Your task to perform on an android device: install app "Pluto TV - Live TV and Movies" Image 0: 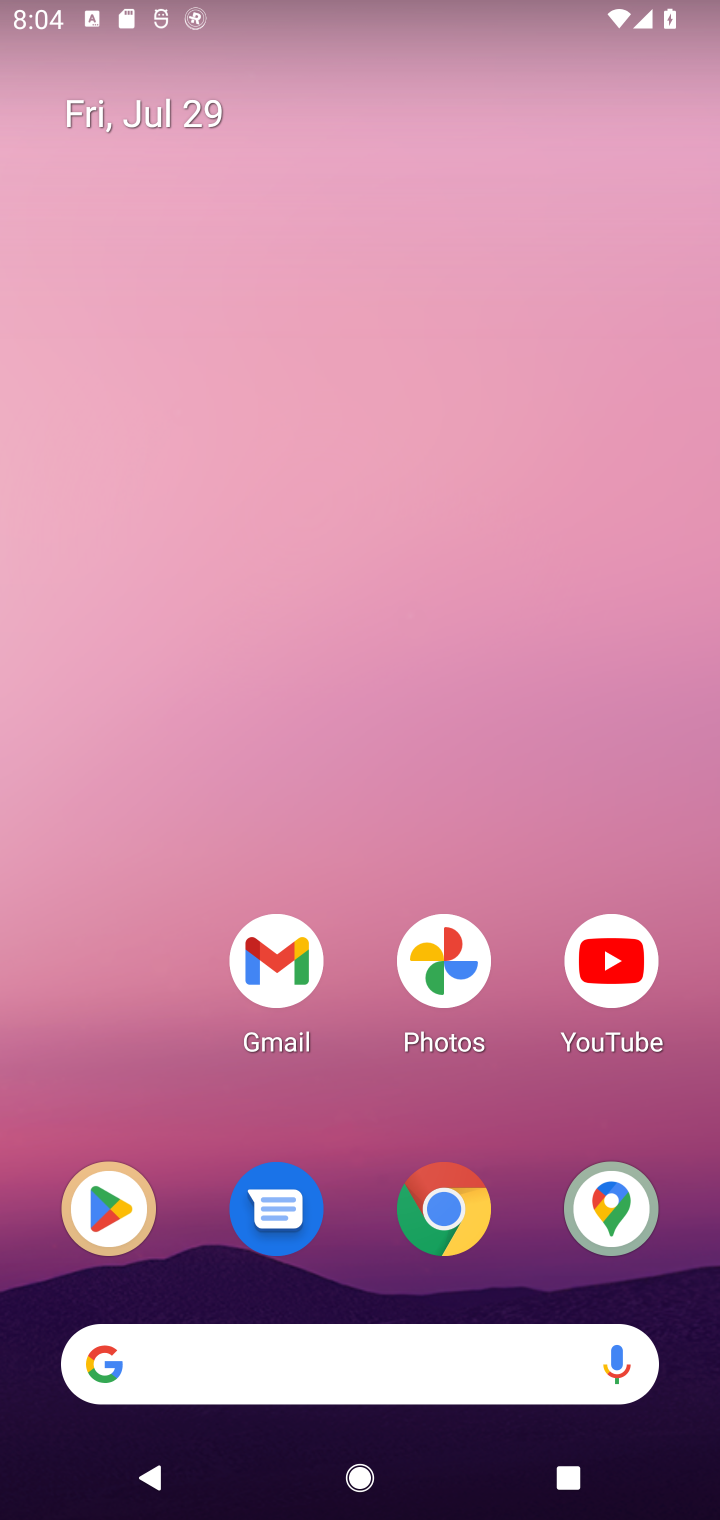
Step 0: click (114, 1222)
Your task to perform on an android device: install app "Pluto TV - Live TV and Movies" Image 1: 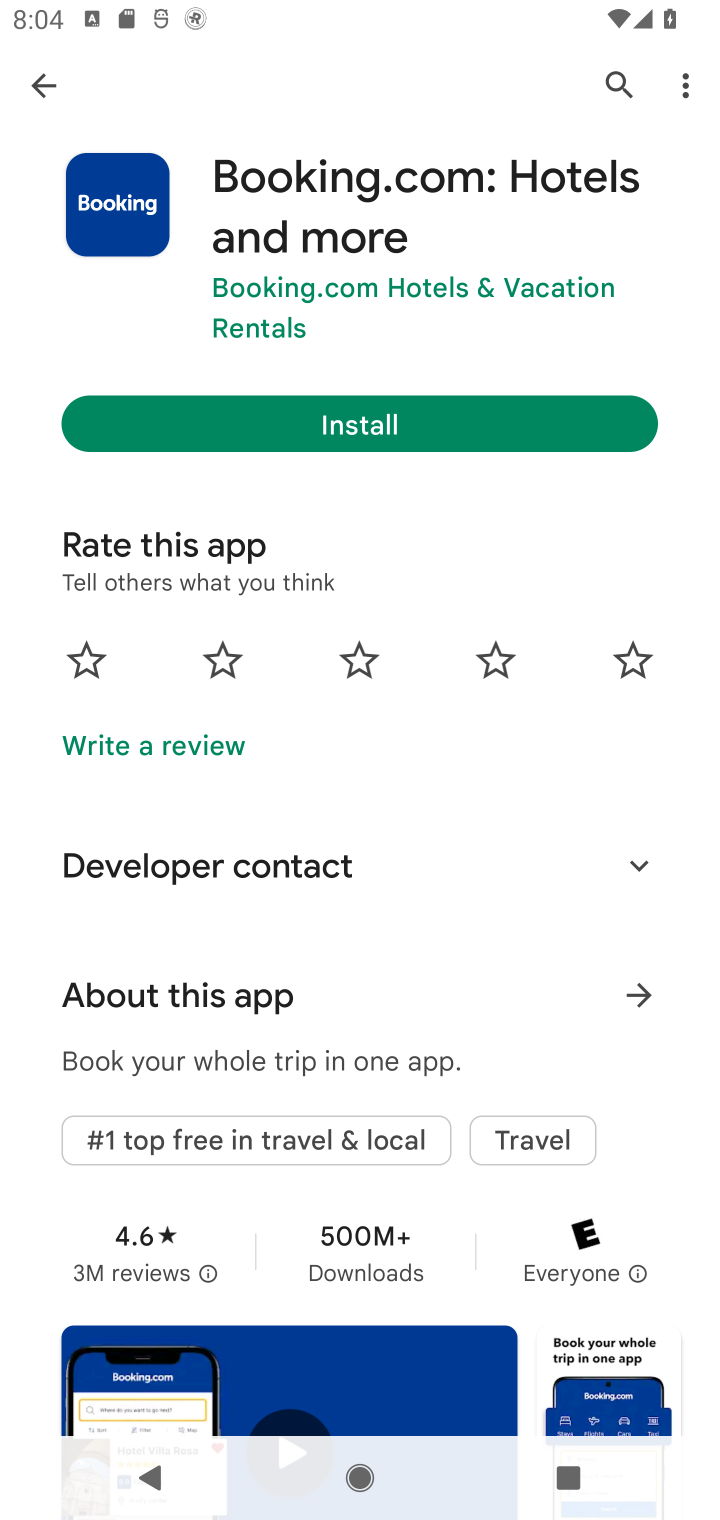
Step 1: click (616, 84)
Your task to perform on an android device: install app "Pluto TV - Live TV and Movies" Image 2: 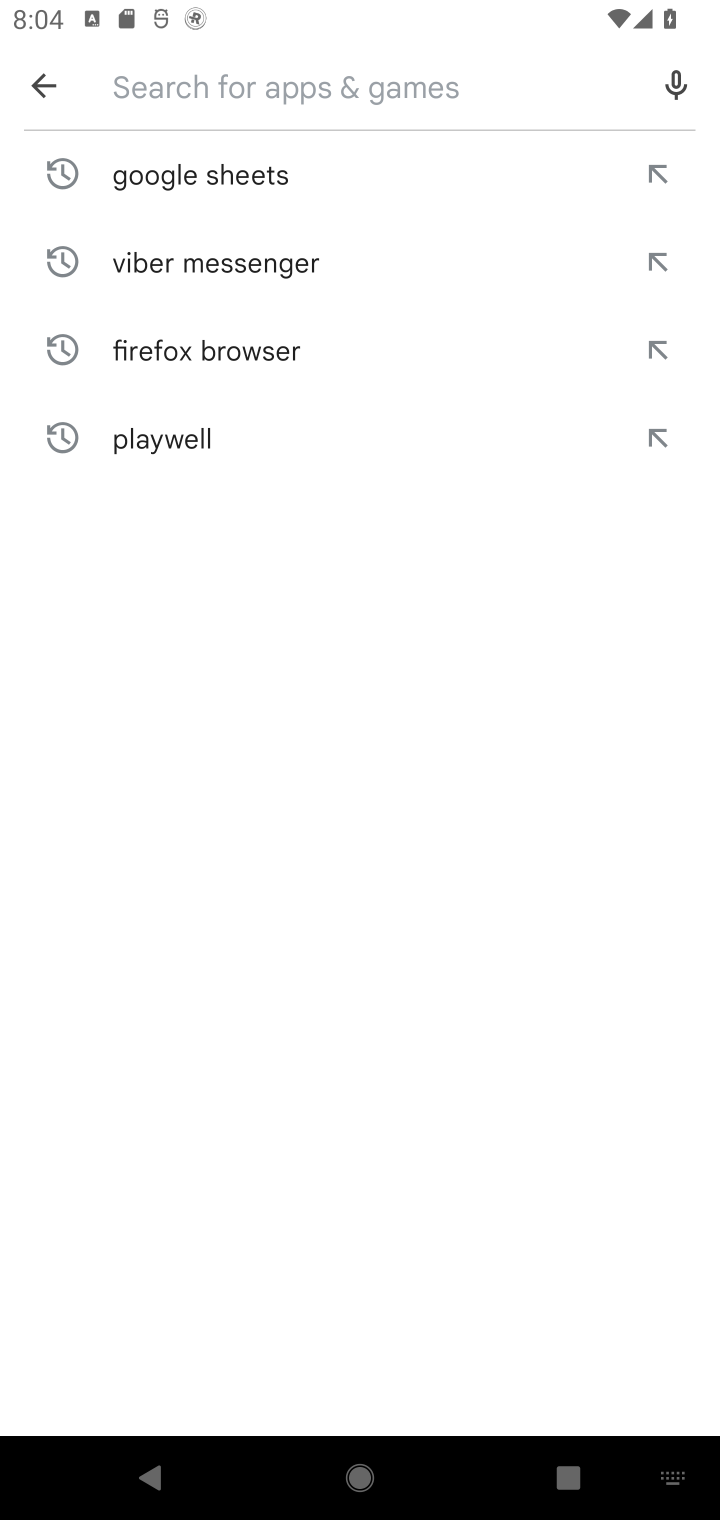
Step 2: click (383, 85)
Your task to perform on an android device: install app "Pluto TV - Live TV and Movies" Image 3: 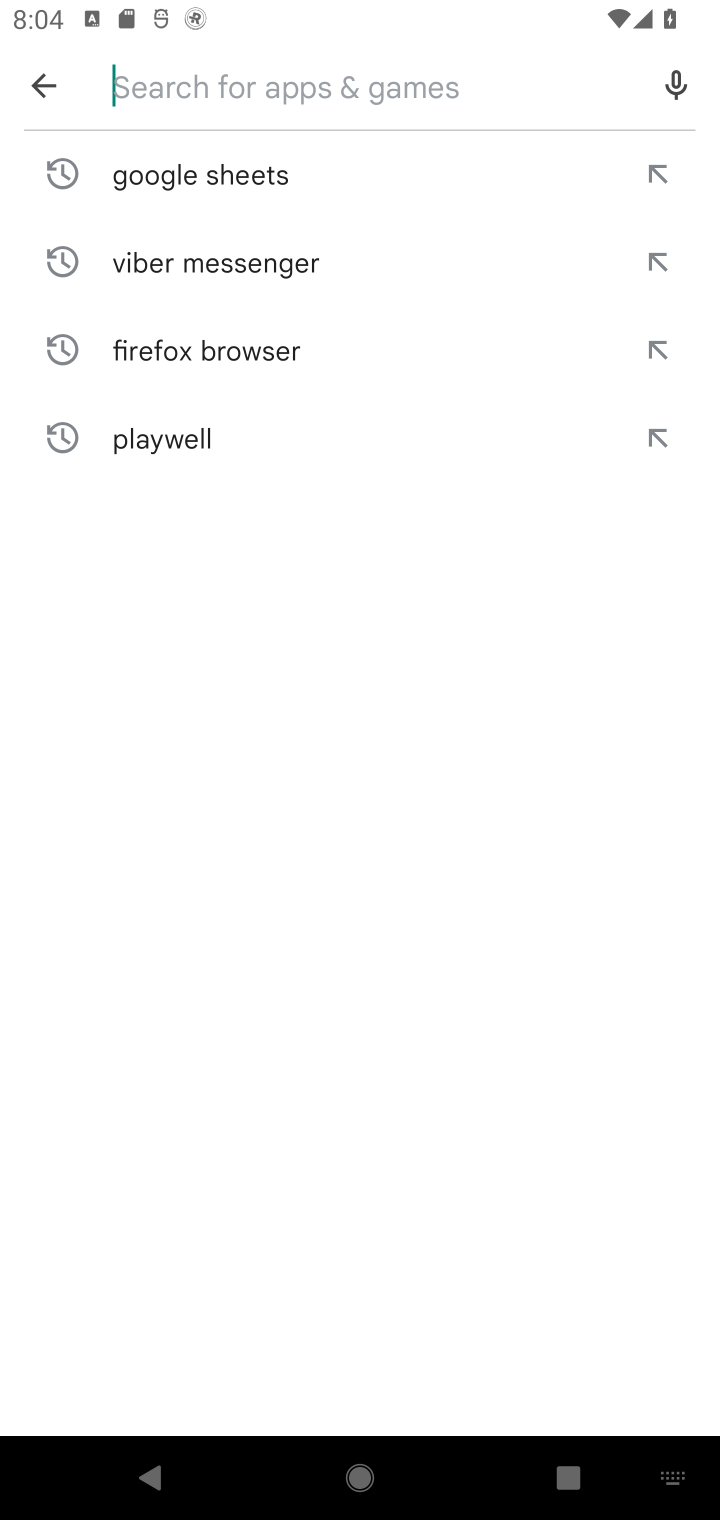
Step 3: type "Pluto TV - Live TV and Movies"
Your task to perform on an android device: install app "Pluto TV - Live TV and Movies" Image 4: 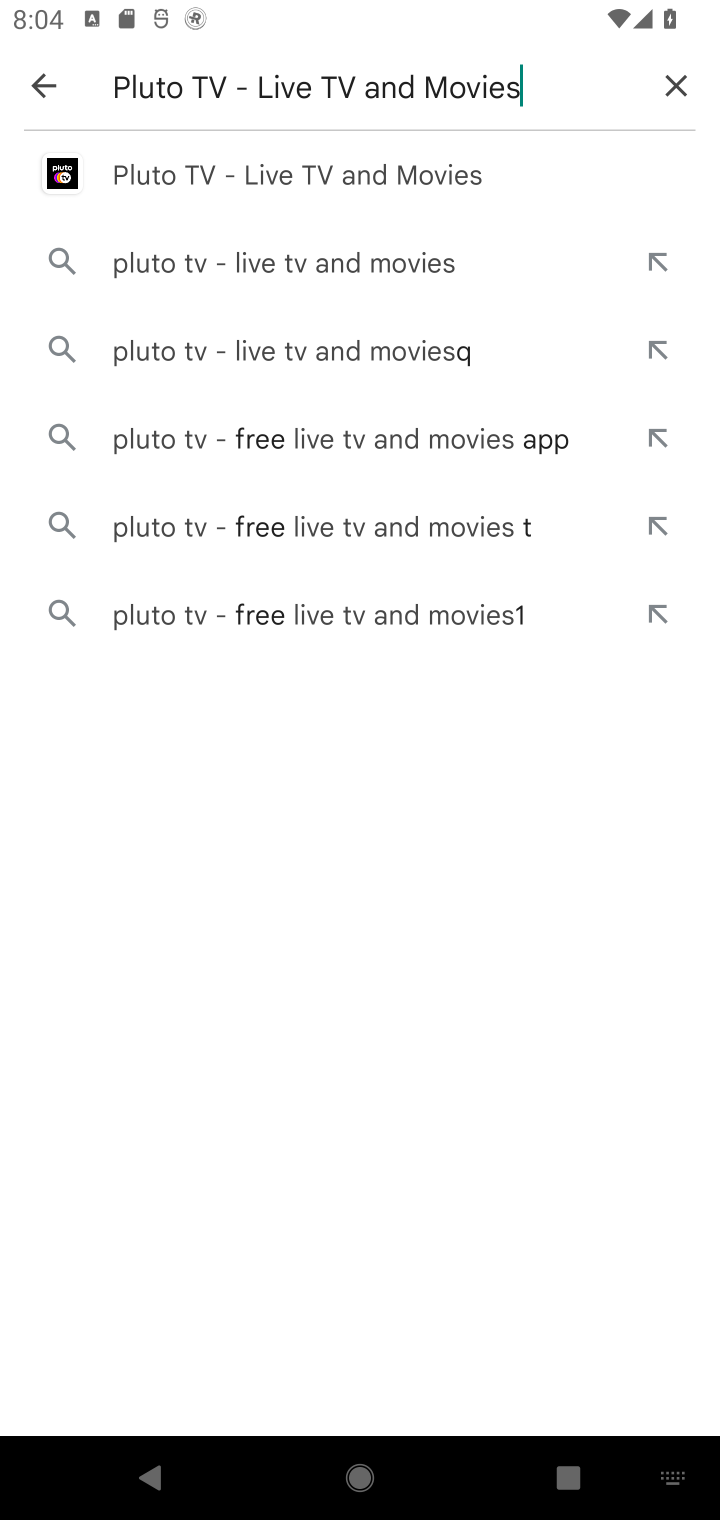
Step 4: click (256, 189)
Your task to perform on an android device: install app "Pluto TV - Live TV and Movies" Image 5: 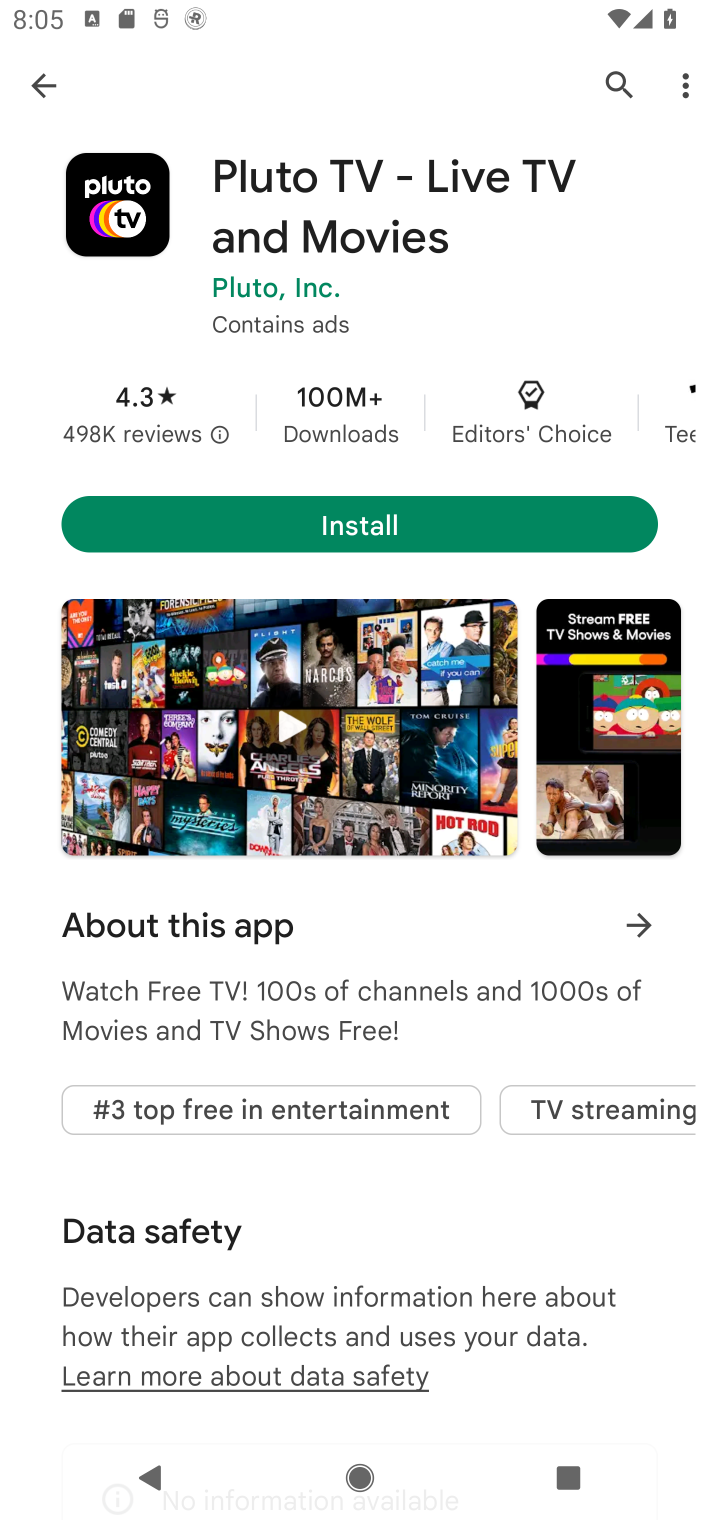
Step 5: click (353, 540)
Your task to perform on an android device: install app "Pluto TV - Live TV and Movies" Image 6: 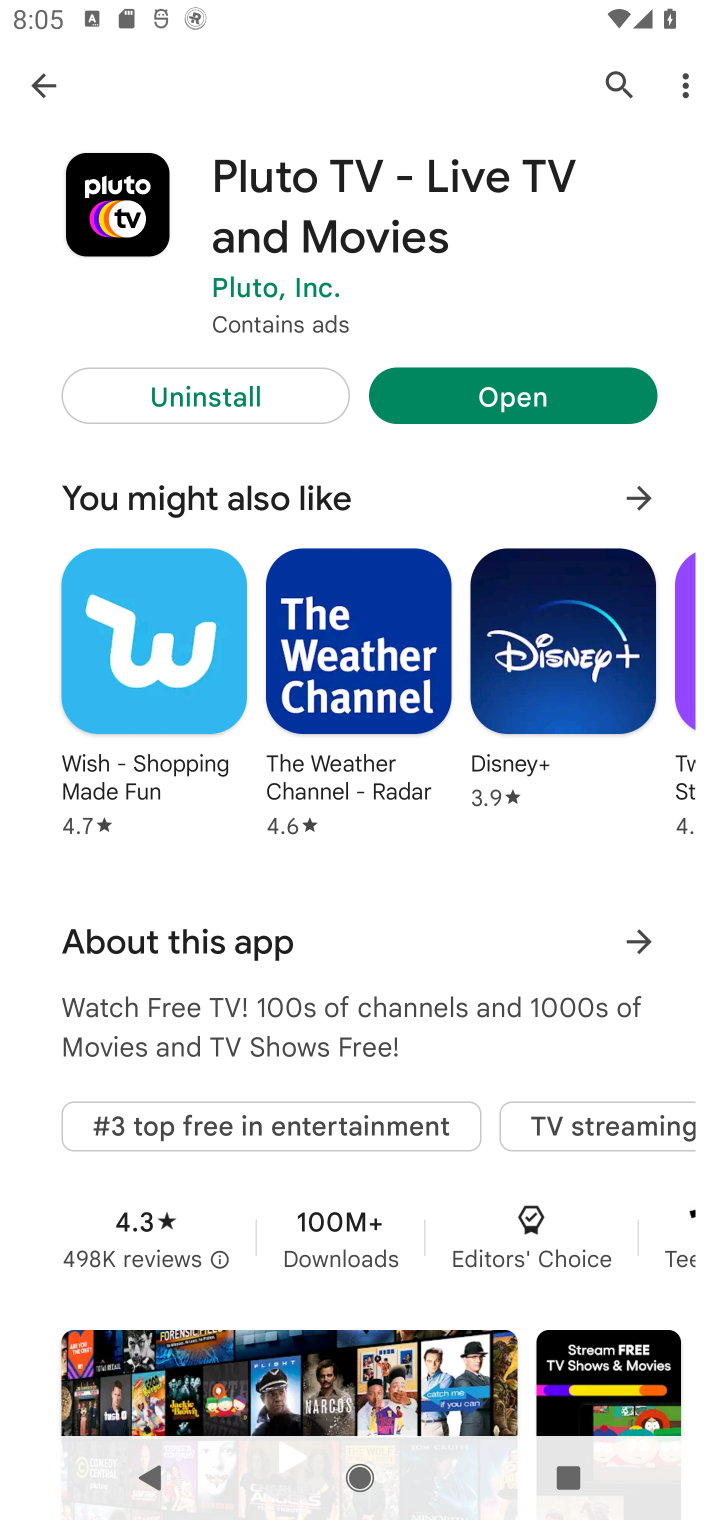
Step 6: task complete